Your task to perform on an android device: change the clock display to digital Image 0: 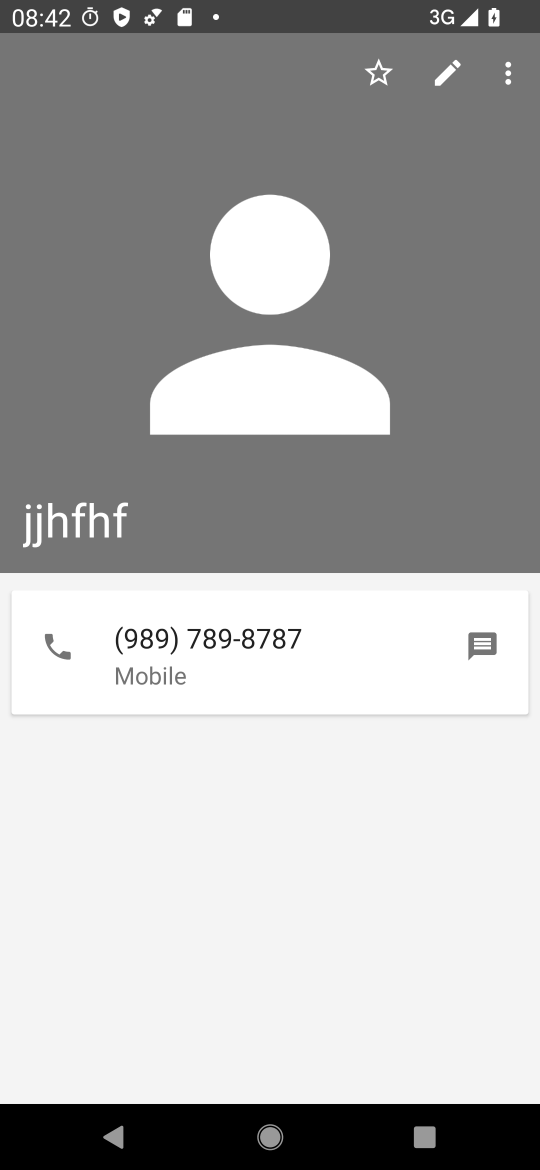
Step 0: press home button
Your task to perform on an android device: change the clock display to digital Image 1: 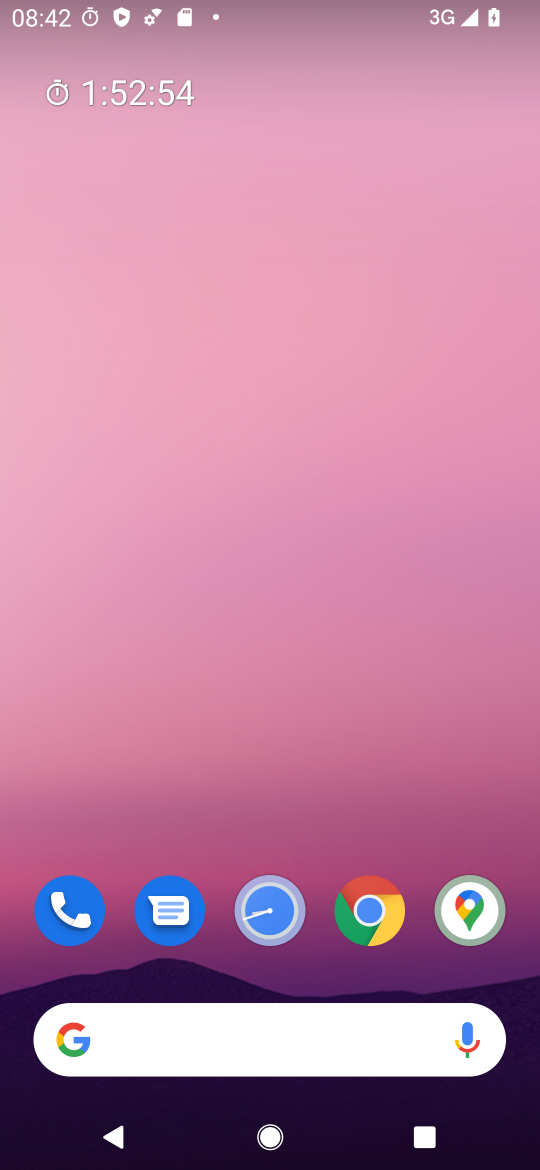
Step 1: drag from (331, 1020) to (312, 803)
Your task to perform on an android device: change the clock display to digital Image 2: 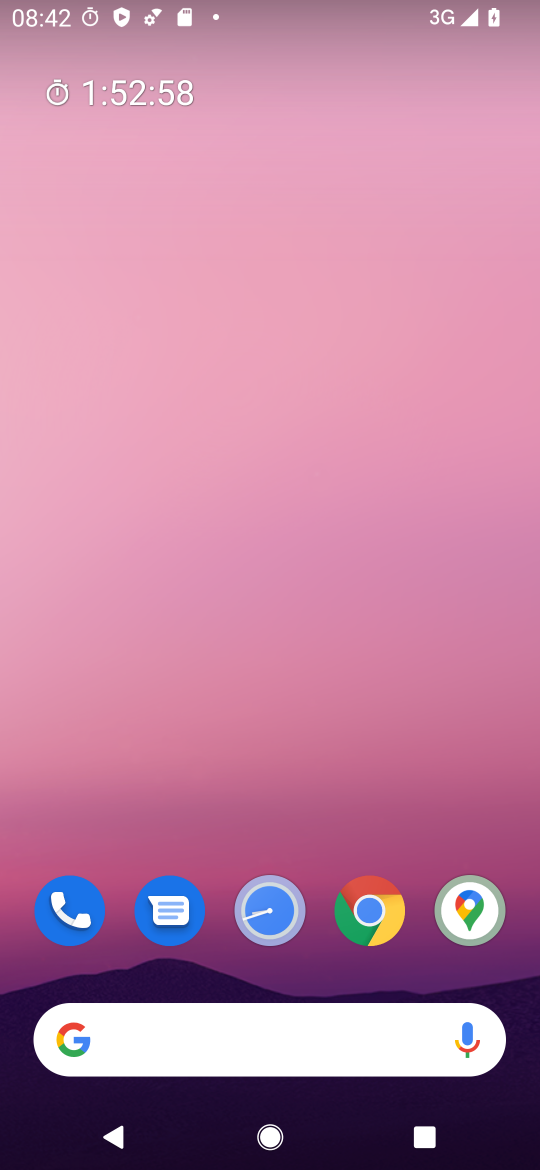
Step 2: drag from (306, 1043) to (284, 42)
Your task to perform on an android device: change the clock display to digital Image 3: 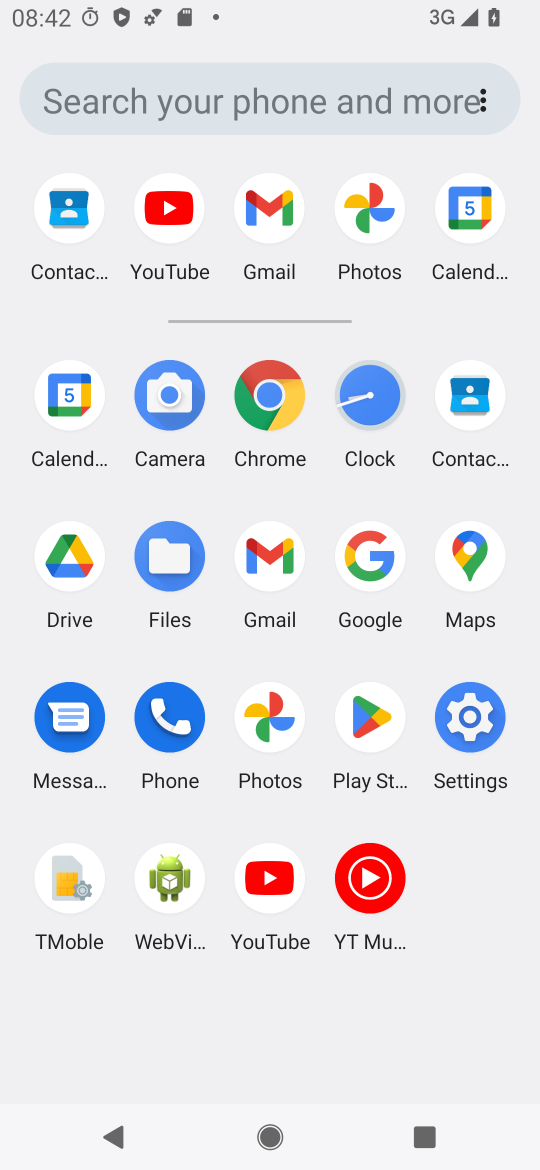
Step 3: click (366, 400)
Your task to perform on an android device: change the clock display to digital Image 4: 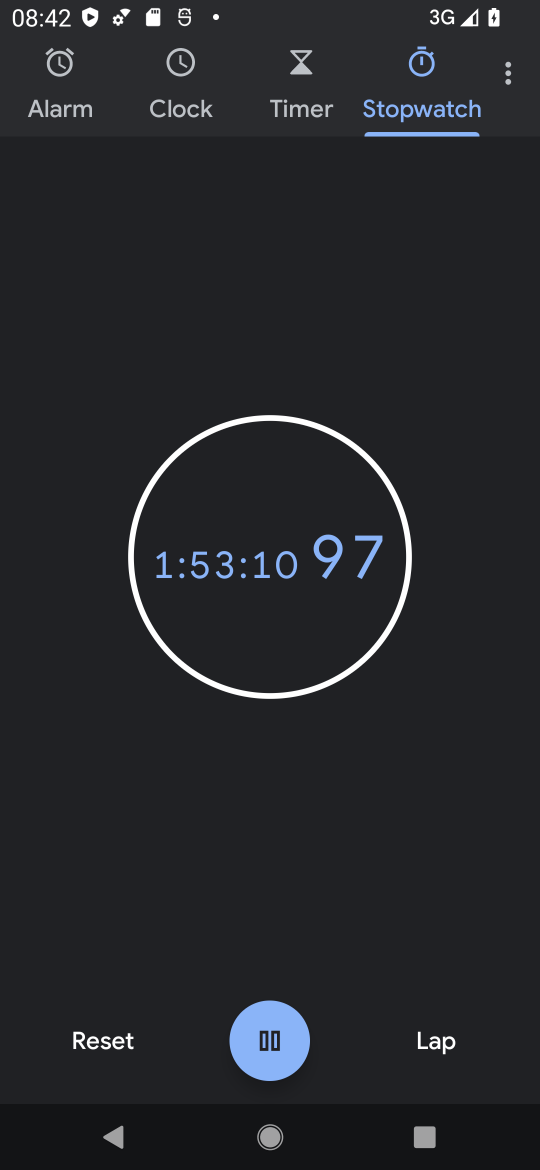
Step 4: click (494, 61)
Your task to perform on an android device: change the clock display to digital Image 5: 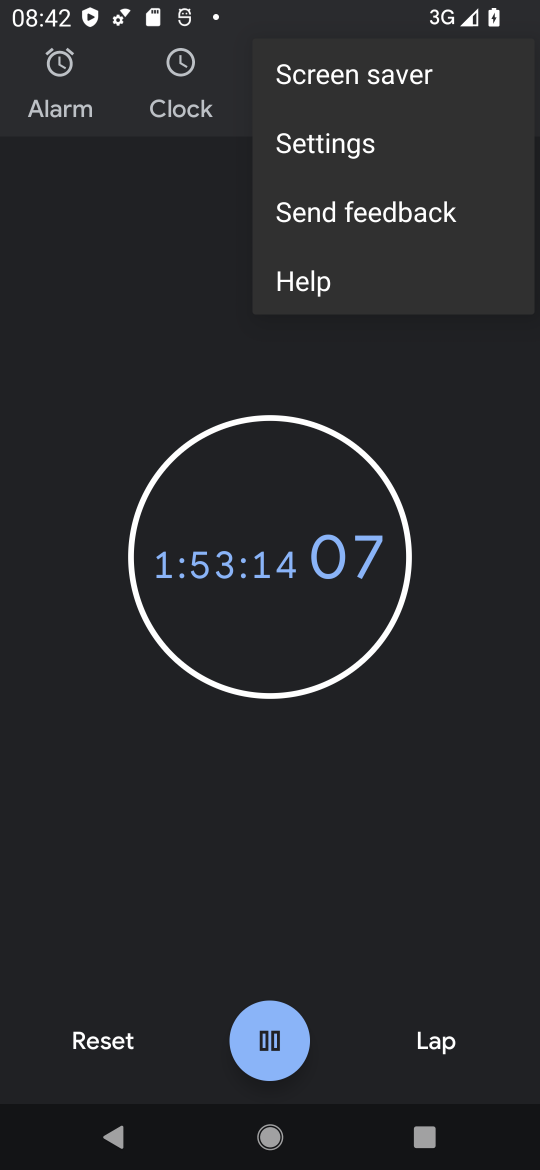
Step 5: click (364, 137)
Your task to perform on an android device: change the clock display to digital Image 6: 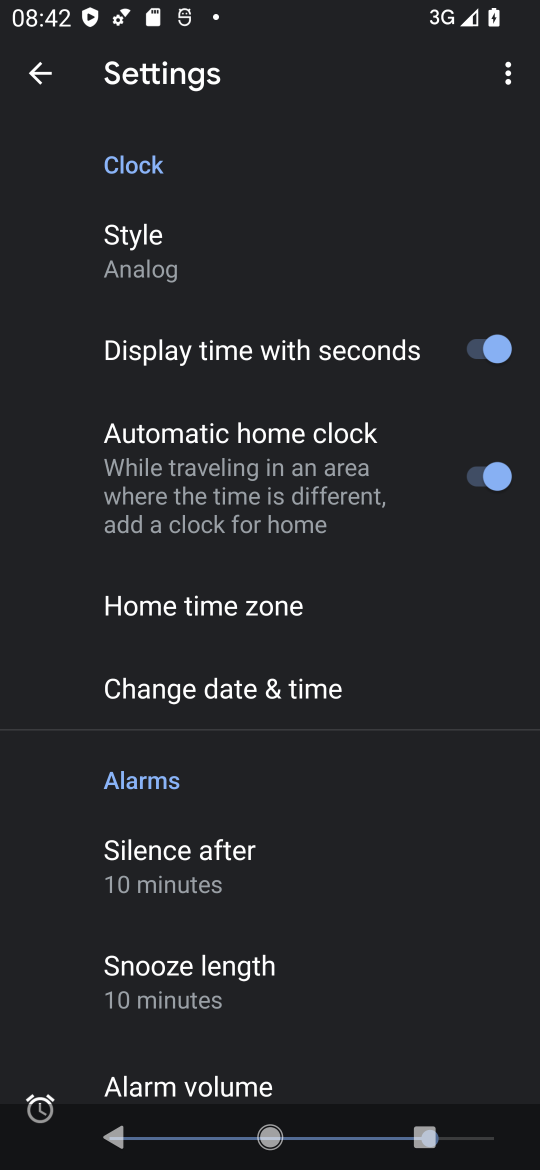
Step 6: click (225, 272)
Your task to perform on an android device: change the clock display to digital Image 7: 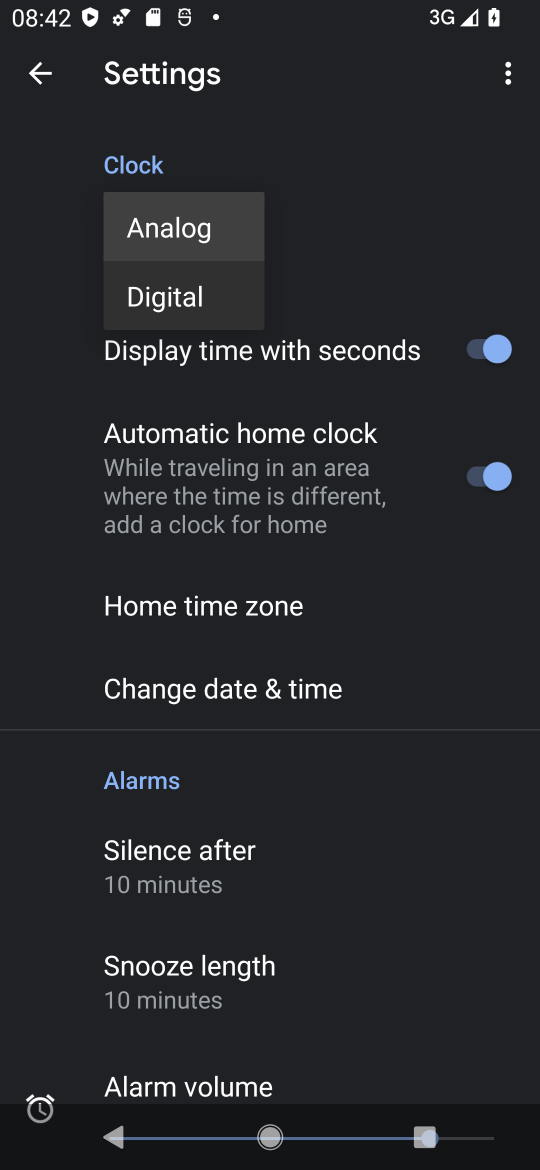
Step 7: click (195, 297)
Your task to perform on an android device: change the clock display to digital Image 8: 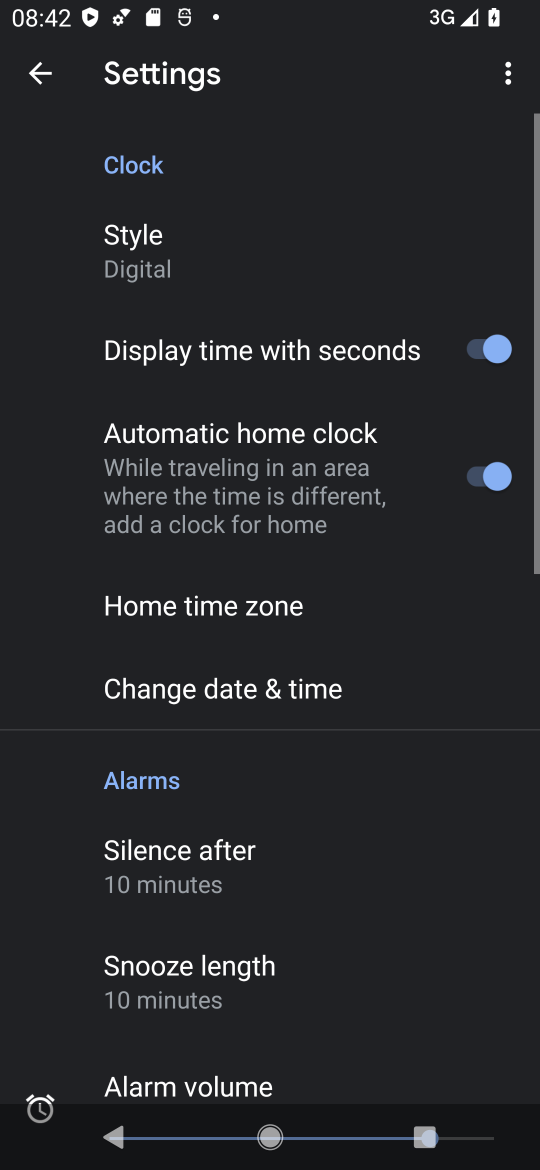
Step 8: task complete